Your task to perform on an android device: Show me popular games on the Play Store Image 0: 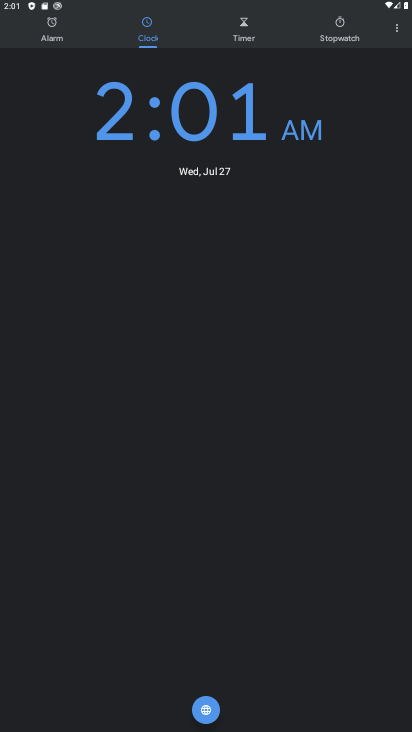
Step 0: press home button
Your task to perform on an android device: Show me popular games on the Play Store Image 1: 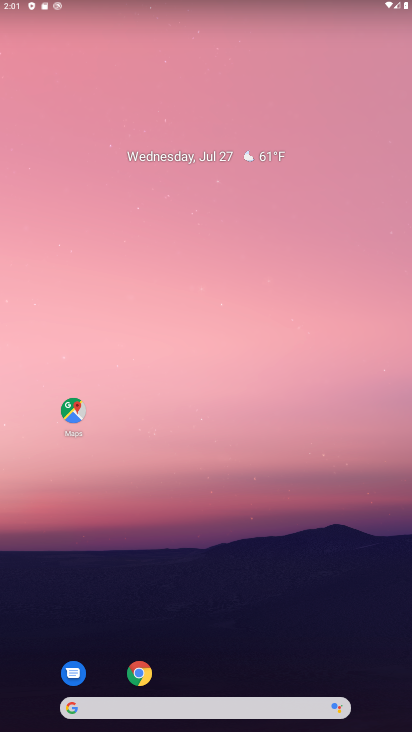
Step 1: drag from (185, 687) to (189, 132)
Your task to perform on an android device: Show me popular games on the Play Store Image 2: 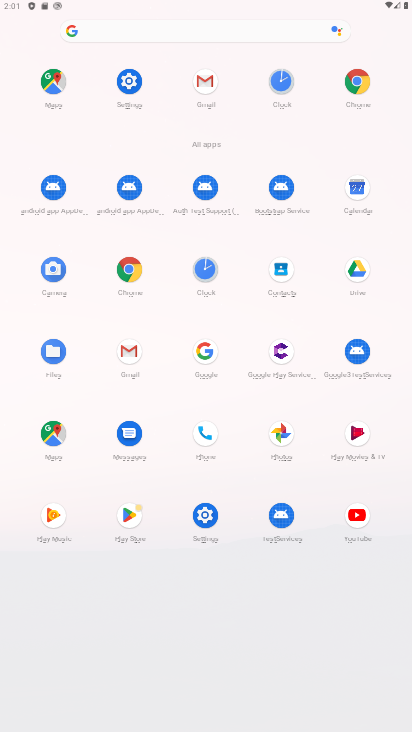
Step 2: click (189, 132)
Your task to perform on an android device: Show me popular games on the Play Store Image 3: 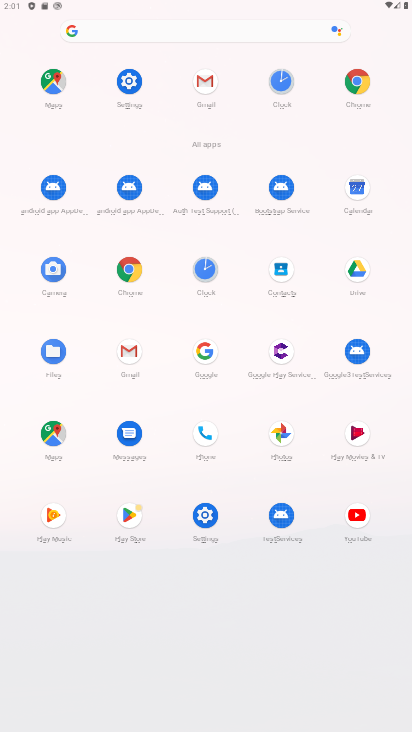
Step 3: click (127, 510)
Your task to perform on an android device: Show me popular games on the Play Store Image 4: 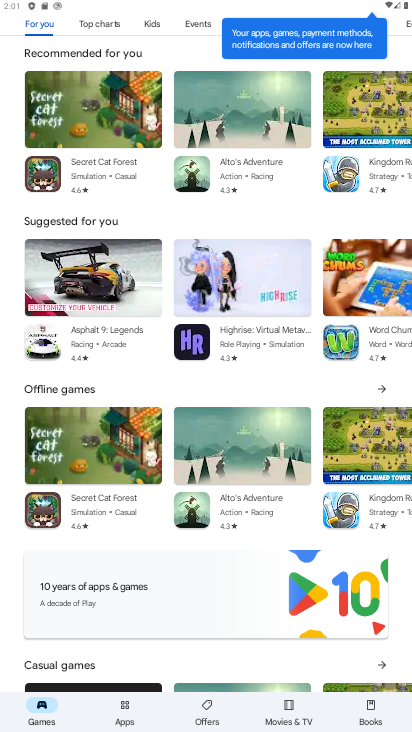
Step 4: click (95, 24)
Your task to perform on an android device: Show me popular games on the Play Store Image 5: 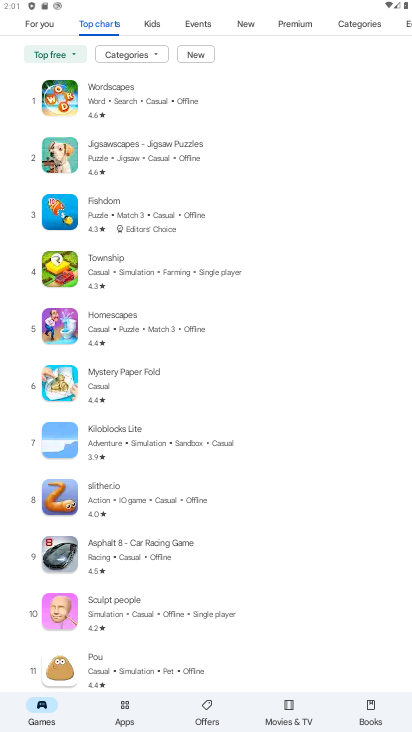
Step 5: task complete